Your task to perform on an android device: change alarm snooze length Image 0: 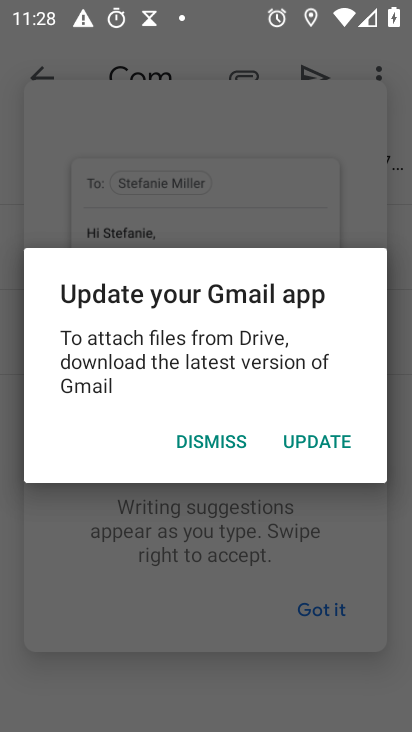
Step 0: press home button
Your task to perform on an android device: change alarm snooze length Image 1: 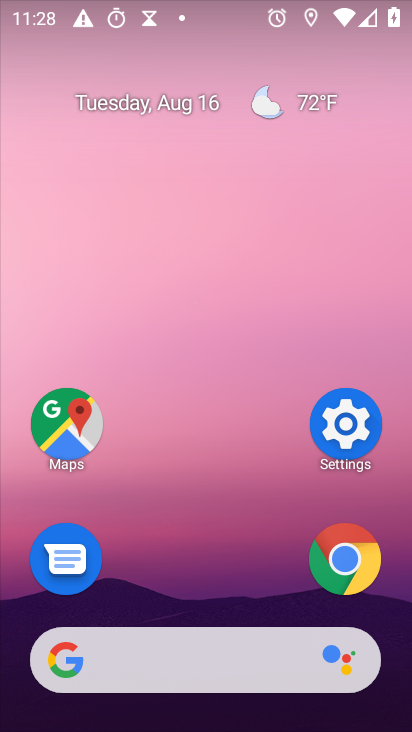
Step 1: drag from (255, 504) to (281, 139)
Your task to perform on an android device: change alarm snooze length Image 2: 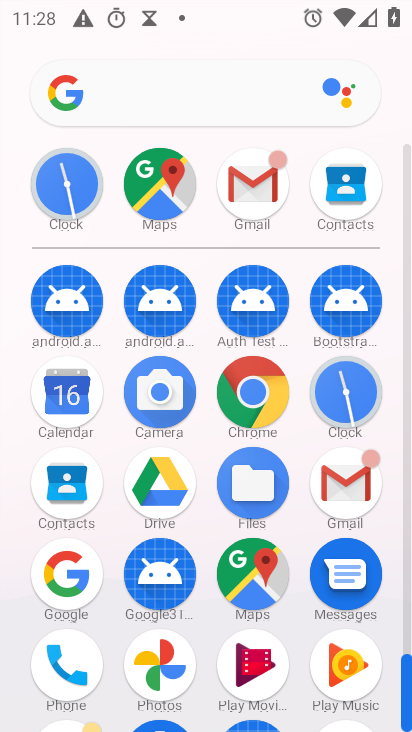
Step 2: click (349, 400)
Your task to perform on an android device: change alarm snooze length Image 3: 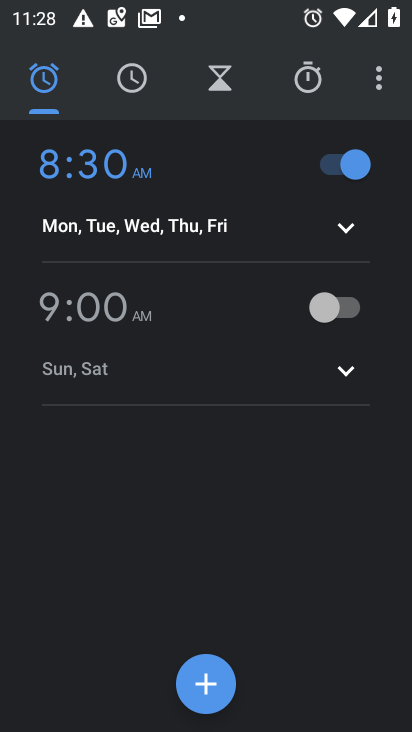
Step 3: click (383, 80)
Your task to perform on an android device: change alarm snooze length Image 4: 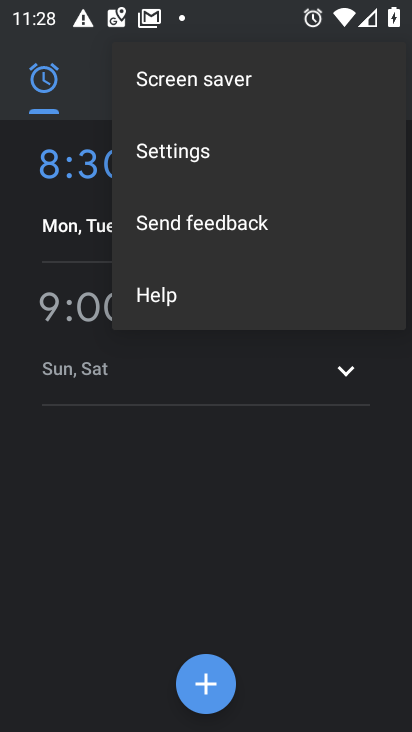
Step 4: click (191, 152)
Your task to perform on an android device: change alarm snooze length Image 5: 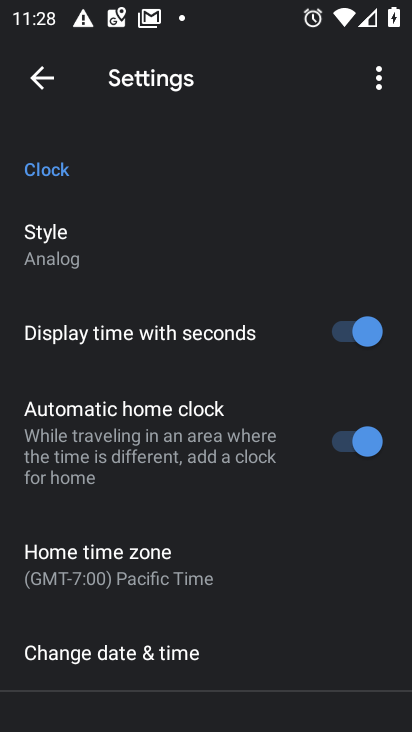
Step 5: drag from (225, 599) to (246, 117)
Your task to perform on an android device: change alarm snooze length Image 6: 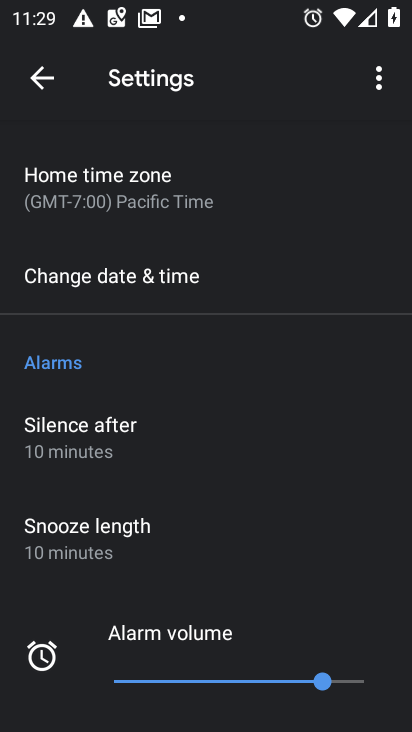
Step 6: click (106, 541)
Your task to perform on an android device: change alarm snooze length Image 7: 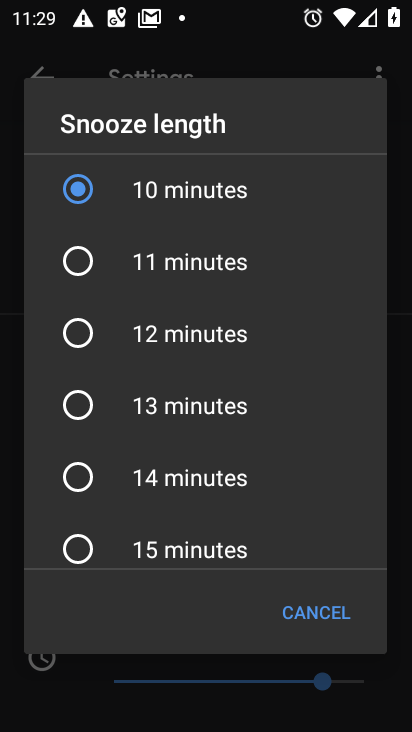
Step 7: click (70, 551)
Your task to perform on an android device: change alarm snooze length Image 8: 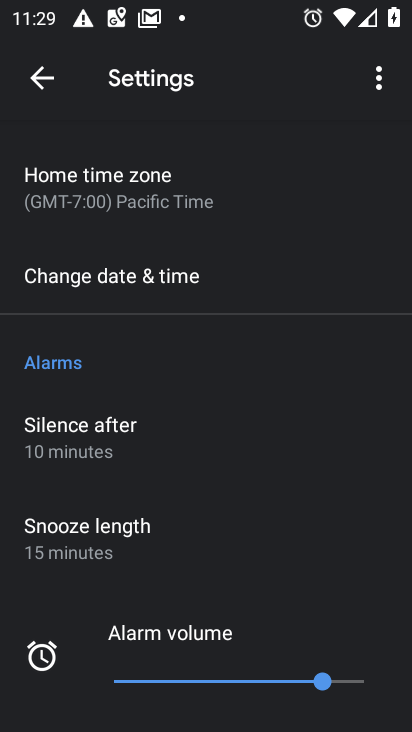
Step 8: task complete